Your task to perform on an android device: What's the weather going to be this weekend? Image 0: 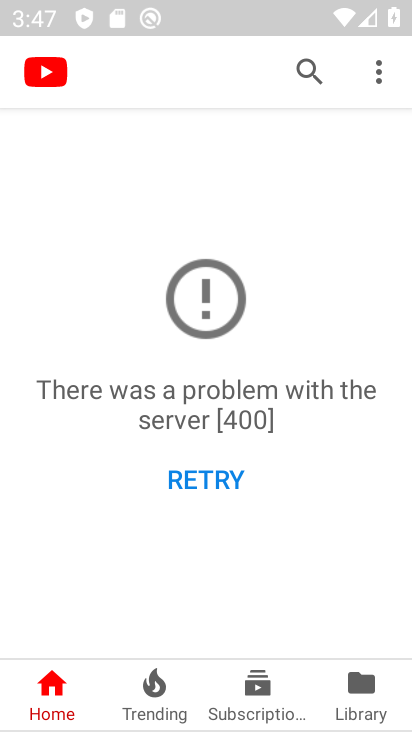
Step 0: press home button
Your task to perform on an android device: What's the weather going to be this weekend? Image 1: 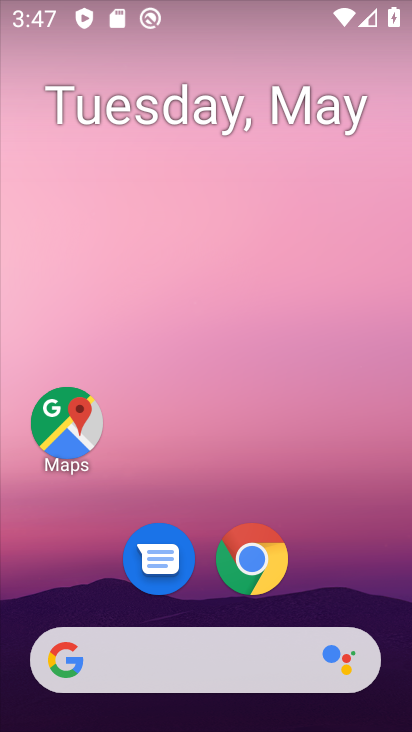
Step 1: drag from (361, 584) to (272, 80)
Your task to perform on an android device: What's the weather going to be this weekend? Image 2: 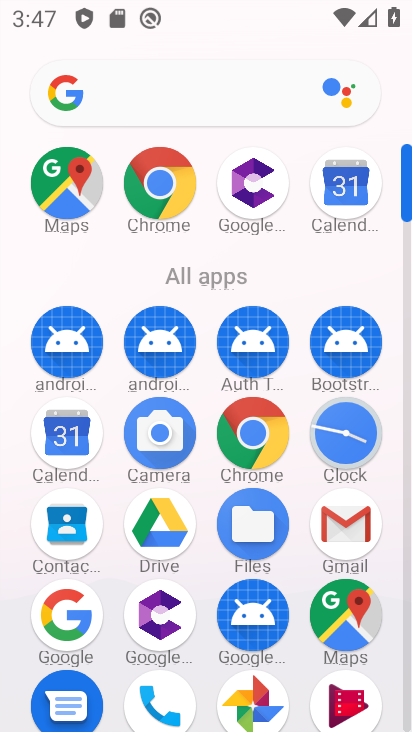
Step 2: click (282, 90)
Your task to perform on an android device: What's the weather going to be this weekend? Image 3: 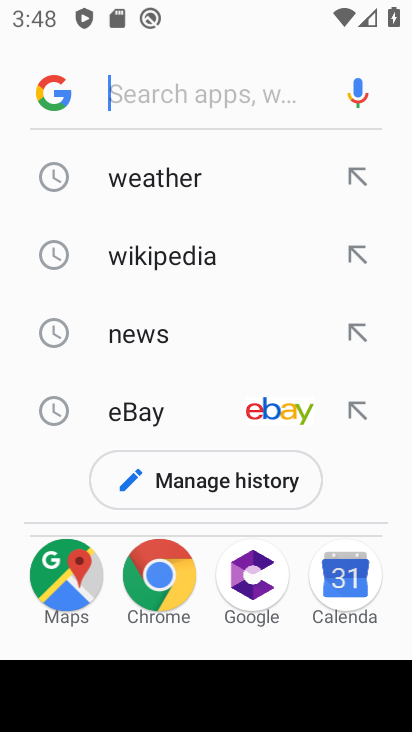
Step 3: type "What's the weather going to be this weekend?"
Your task to perform on an android device: What's the weather going to be this weekend? Image 4: 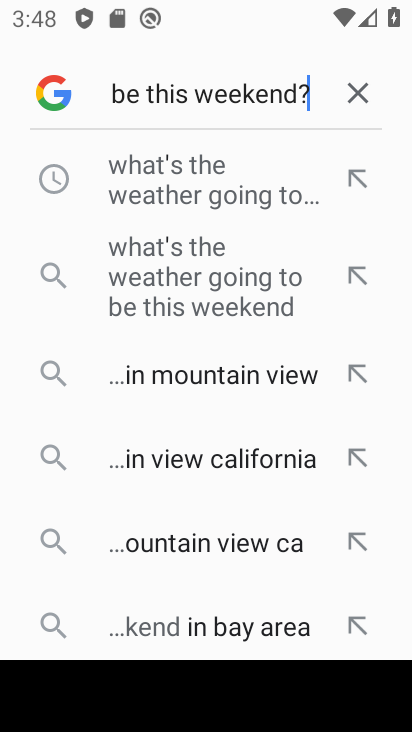
Step 4: click (232, 194)
Your task to perform on an android device: What's the weather going to be this weekend? Image 5: 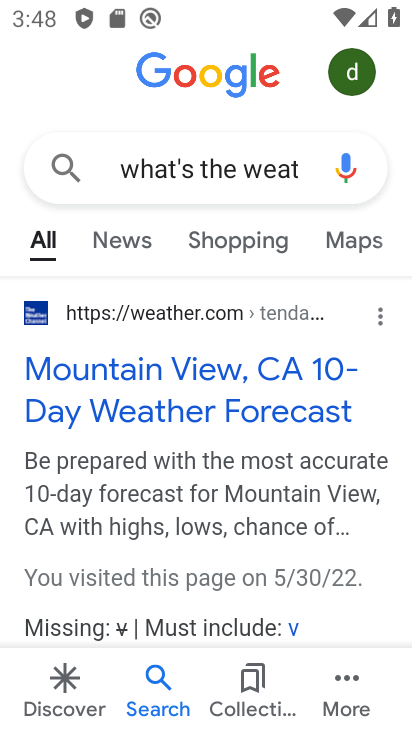
Step 5: click (261, 410)
Your task to perform on an android device: What's the weather going to be this weekend? Image 6: 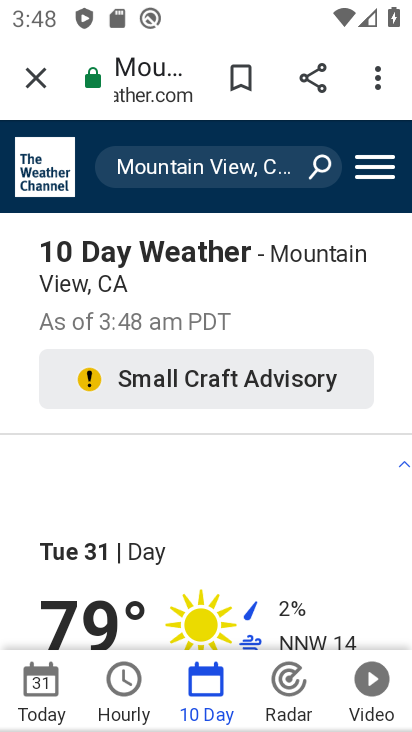
Step 6: task complete